Your task to perform on an android device: What's the weather today? Image 0: 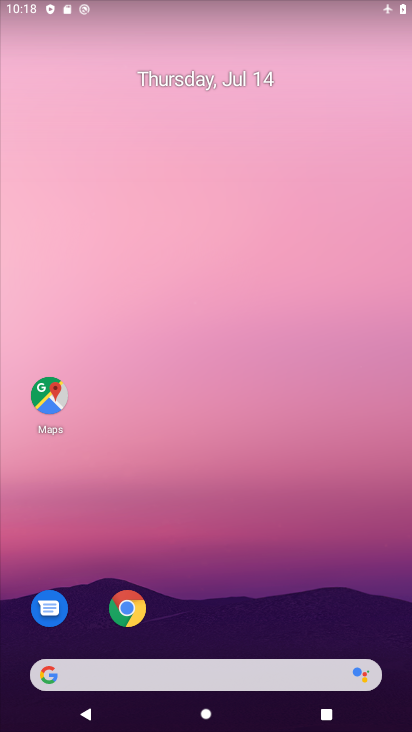
Step 0: click (202, 678)
Your task to perform on an android device: What's the weather today? Image 1: 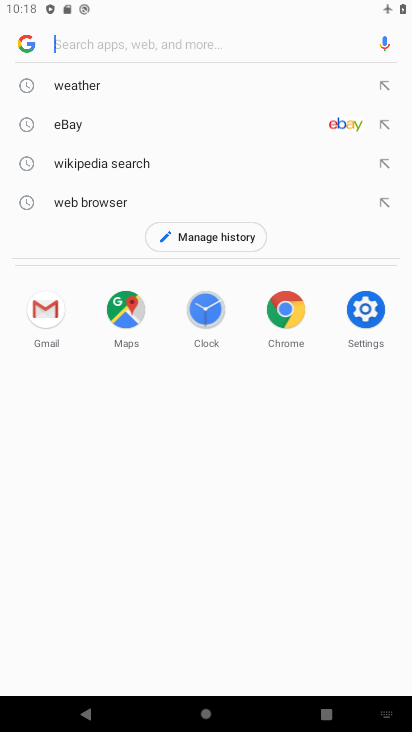
Step 1: click (90, 79)
Your task to perform on an android device: What's the weather today? Image 2: 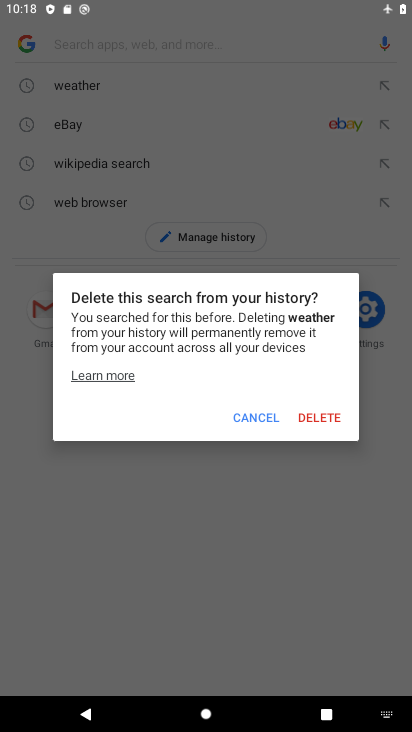
Step 2: click (258, 411)
Your task to perform on an android device: What's the weather today? Image 3: 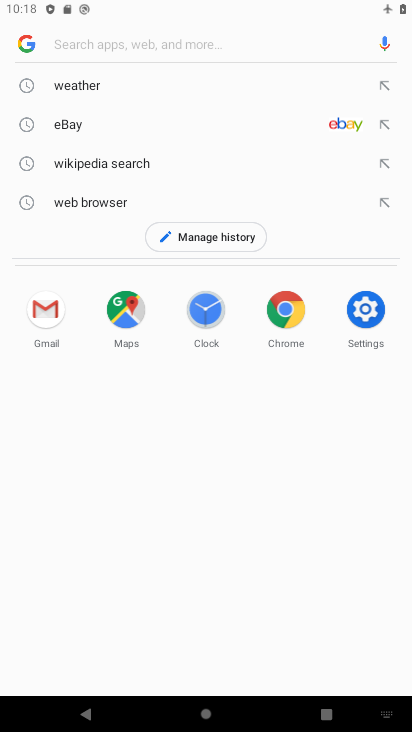
Step 3: click (36, 83)
Your task to perform on an android device: What's the weather today? Image 4: 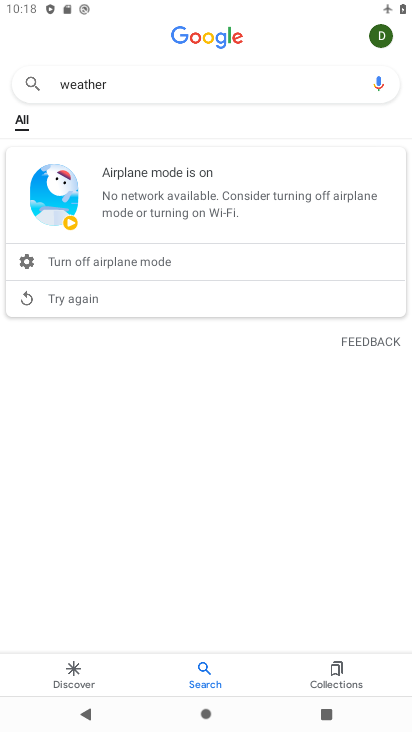
Step 4: task complete